Your task to perform on an android device: Open Yahoo.com Image 0: 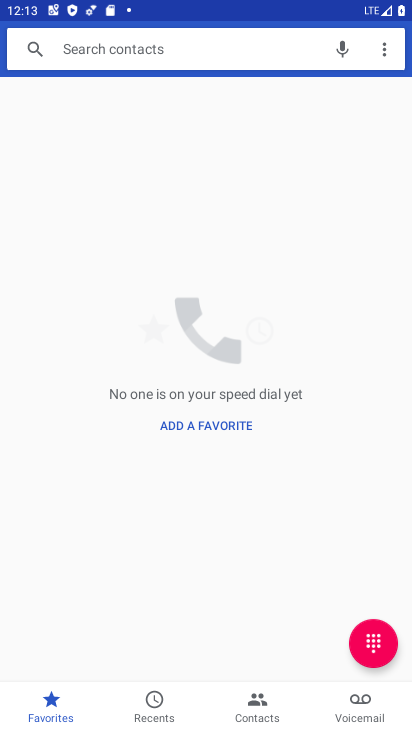
Step 0: press home button
Your task to perform on an android device: Open Yahoo.com Image 1: 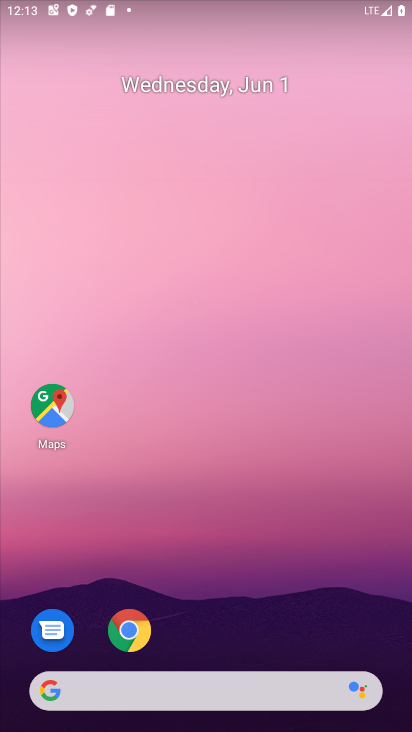
Step 1: click (282, 685)
Your task to perform on an android device: Open Yahoo.com Image 2: 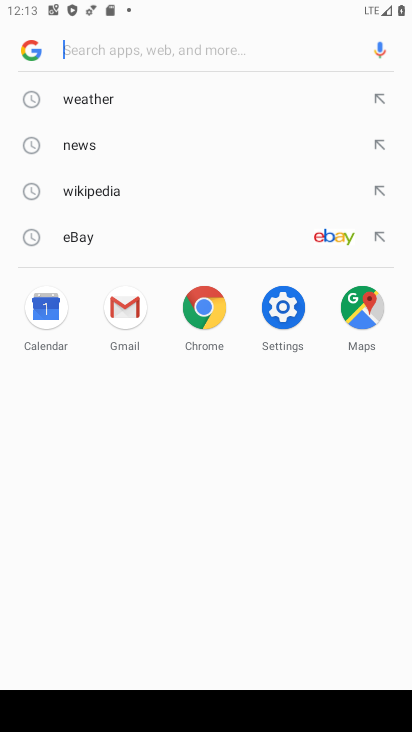
Step 2: type "Yahoo.com"
Your task to perform on an android device: Open Yahoo.com Image 3: 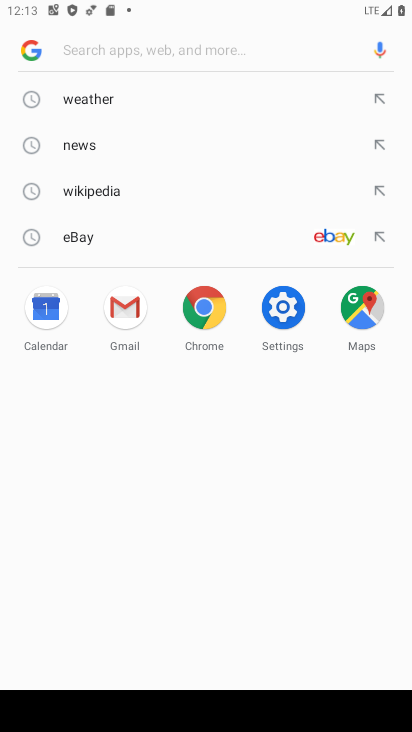
Step 3: click (147, 49)
Your task to perform on an android device: Open Yahoo.com Image 4: 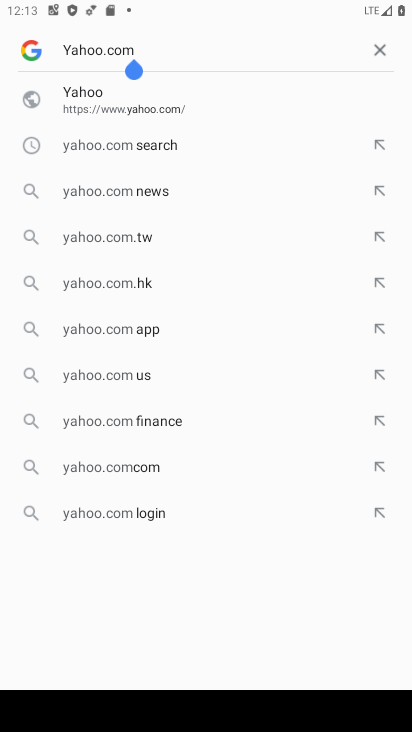
Step 4: click (55, 102)
Your task to perform on an android device: Open Yahoo.com Image 5: 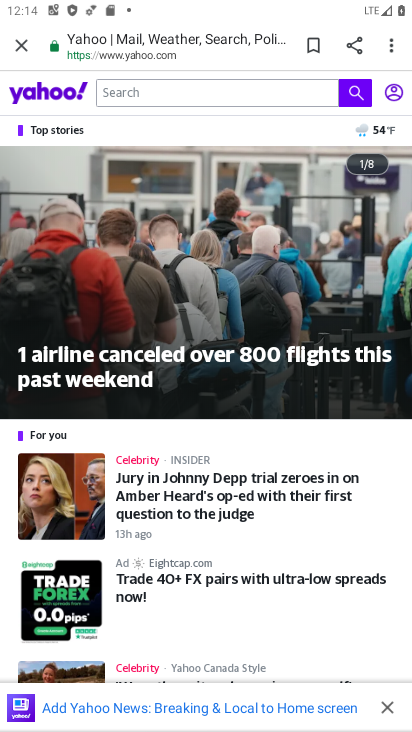
Step 5: task complete